Your task to perform on an android device: Open the web browser Image 0: 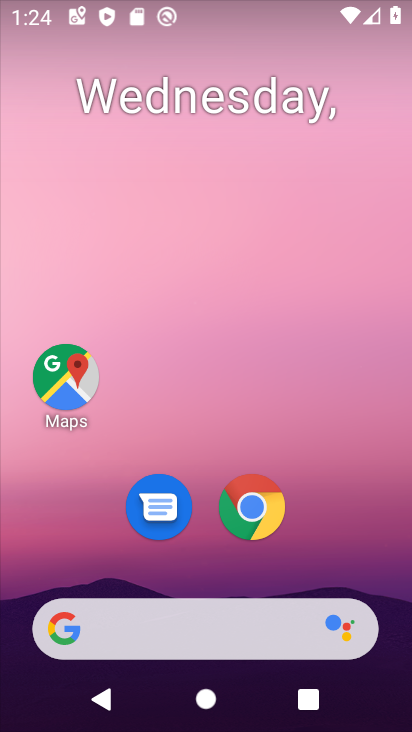
Step 0: drag from (320, 517) to (308, 131)
Your task to perform on an android device: Open the web browser Image 1: 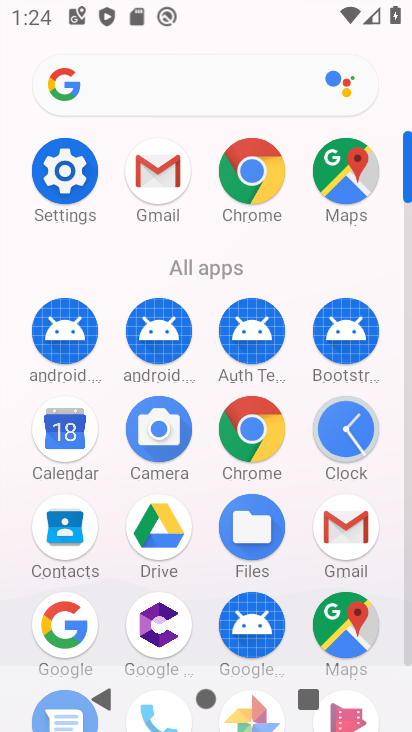
Step 1: click (276, 461)
Your task to perform on an android device: Open the web browser Image 2: 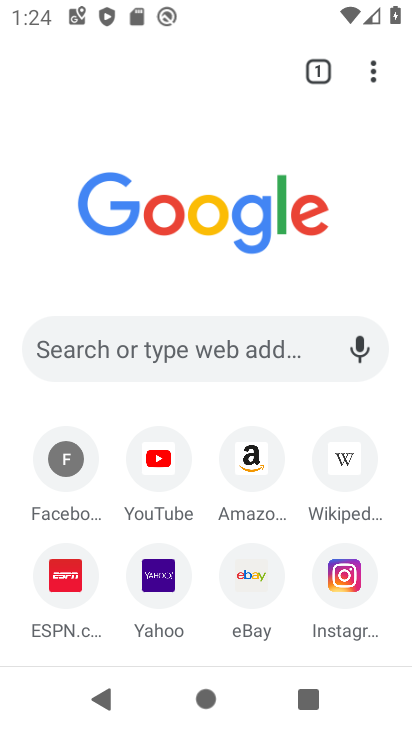
Step 2: task complete